Your task to perform on an android device: Go to Amazon Image 0: 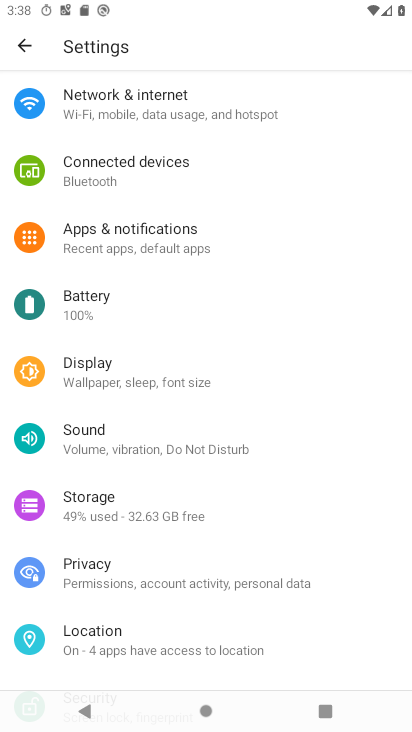
Step 0: press home button
Your task to perform on an android device: Go to Amazon Image 1: 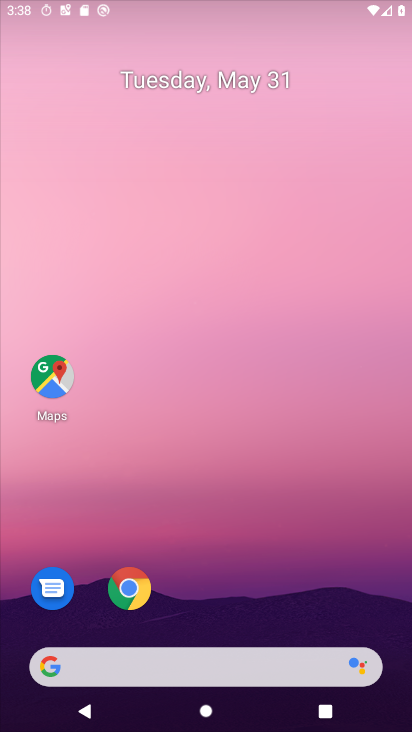
Step 1: drag from (197, 679) to (327, 46)
Your task to perform on an android device: Go to Amazon Image 2: 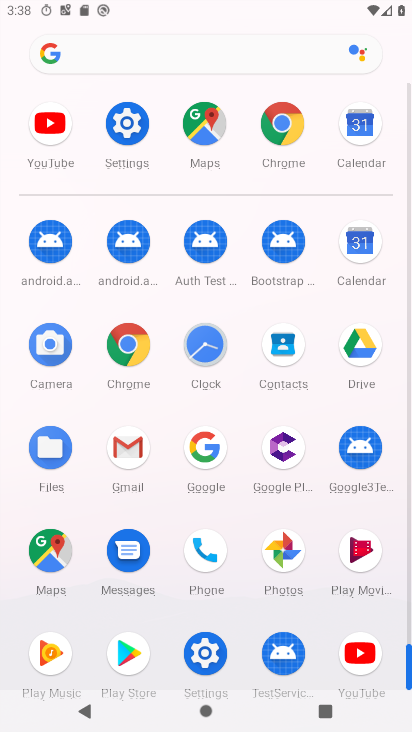
Step 2: click (133, 380)
Your task to perform on an android device: Go to Amazon Image 3: 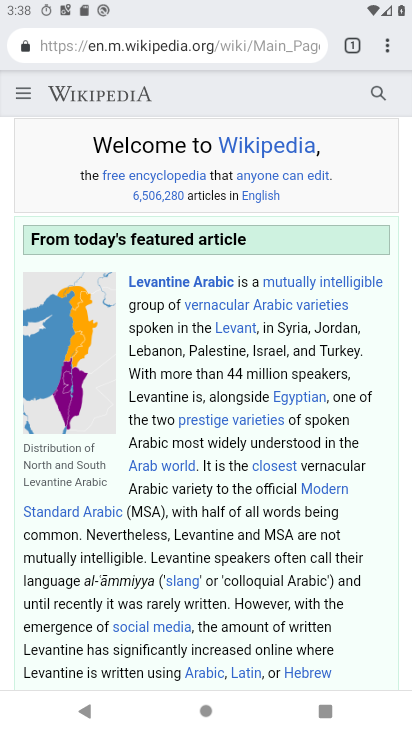
Step 3: click (224, 55)
Your task to perform on an android device: Go to Amazon Image 4: 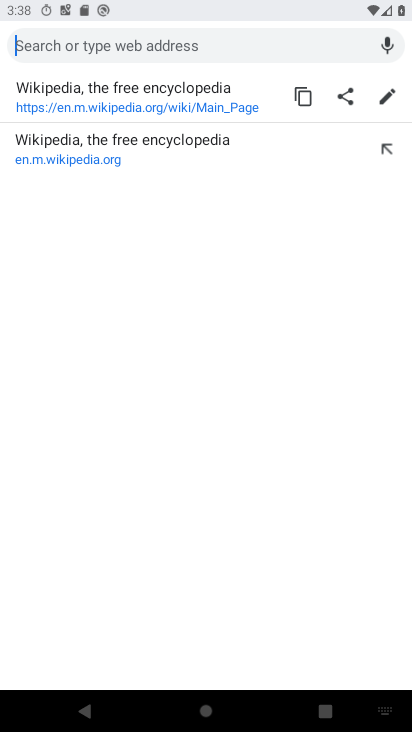
Step 4: type "amazon"
Your task to perform on an android device: Go to Amazon Image 5: 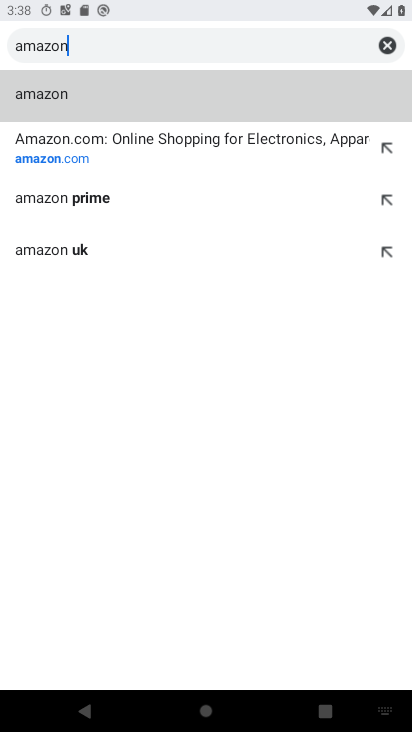
Step 5: click (196, 149)
Your task to perform on an android device: Go to Amazon Image 6: 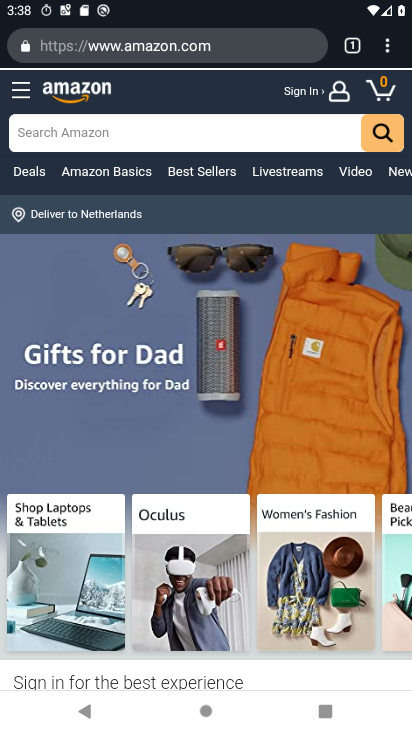
Step 6: task complete